Your task to perform on an android device: What's the weather going to be this weekend? Image 0: 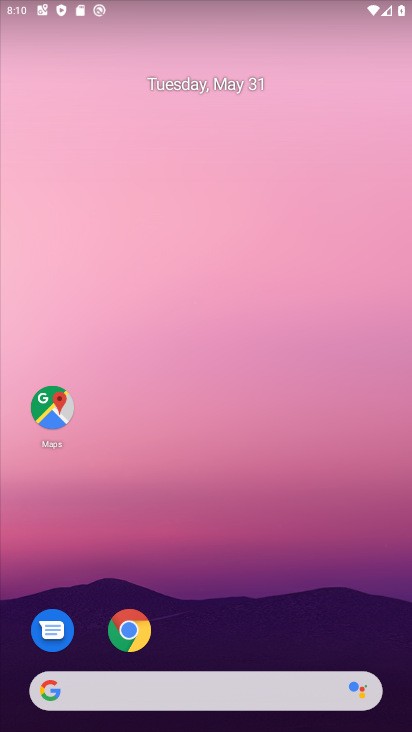
Step 0: click (135, 627)
Your task to perform on an android device: What's the weather going to be this weekend? Image 1: 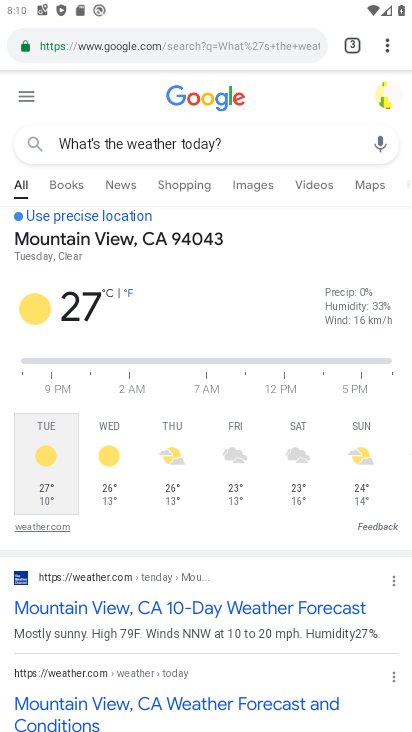
Step 1: click (394, 48)
Your task to perform on an android device: What's the weather going to be this weekend? Image 2: 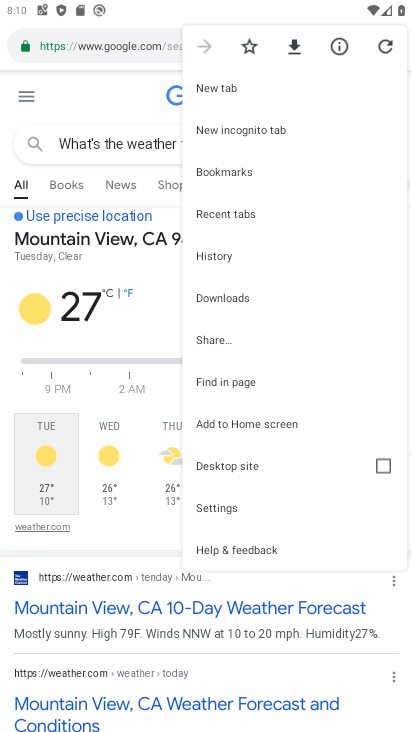
Step 2: click (233, 89)
Your task to perform on an android device: What's the weather going to be this weekend? Image 3: 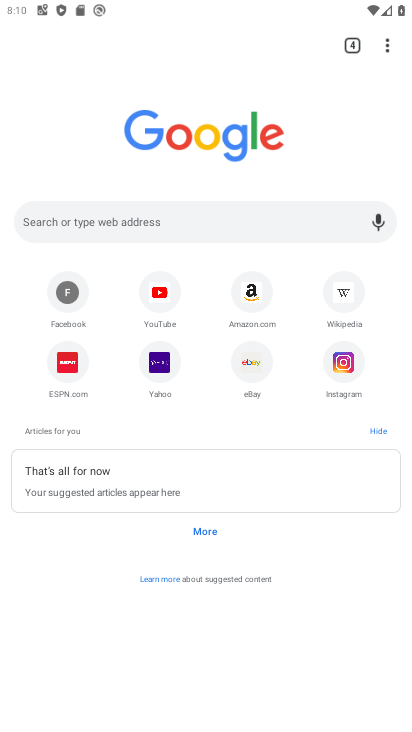
Step 3: click (183, 233)
Your task to perform on an android device: What's the weather going to be this weekend? Image 4: 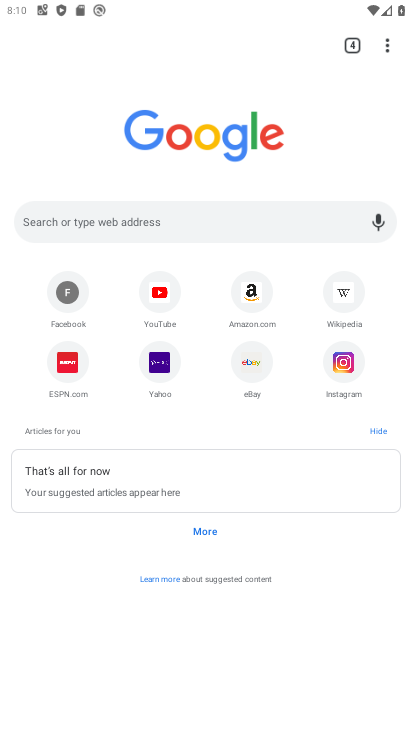
Step 4: click (184, 200)
Your task to perform on an android device: What's the weather going to be this weekend? Image 5: 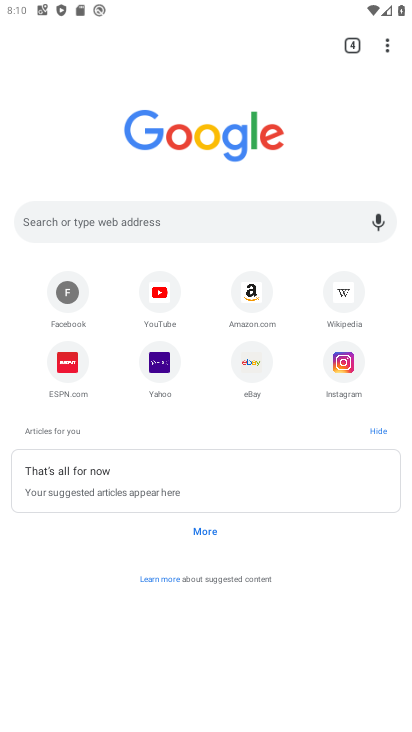
Step 5: click (218, 203)
Your task to perform on an android device: What's the weather going to be this weekend? Image 6: 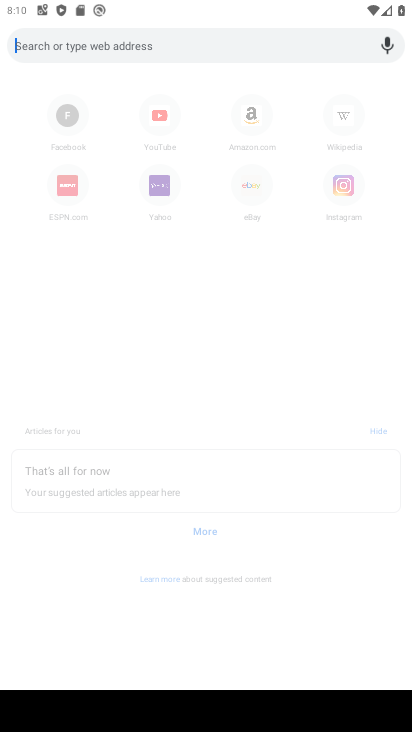
Step 6: type "What's the weather going to be this weekend?"
Your task to perform on an android device: What's the weather going to be this weekend? Image 7: 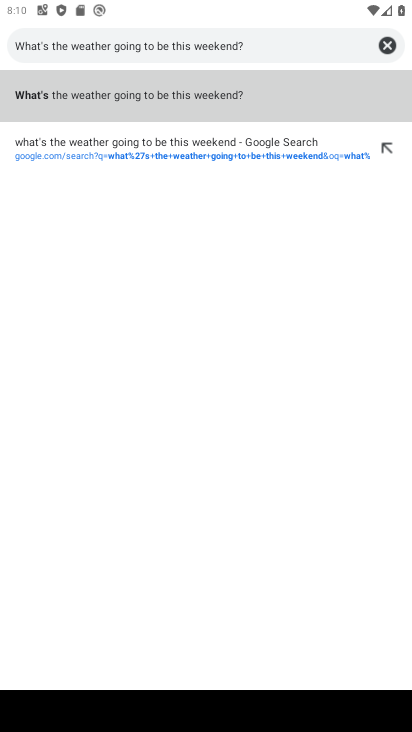
Step 7: click (152, 89)
Your task to perform on an android device: What's the weather going to be this weekend? Image 8: 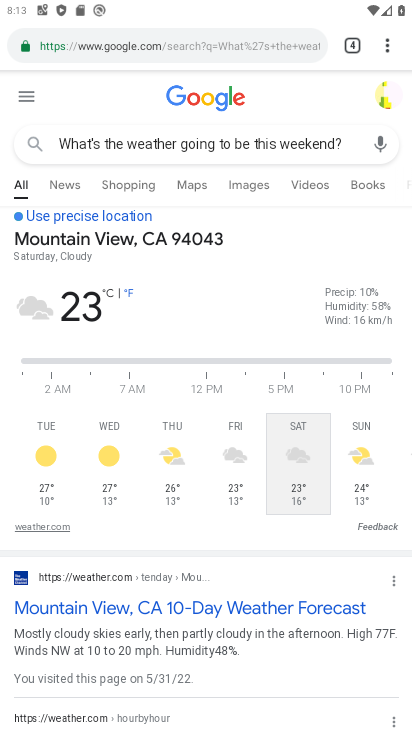
Step 8: task complete